Your task to perform on an android device: turn on showing notifications on the lock screen Image 0: 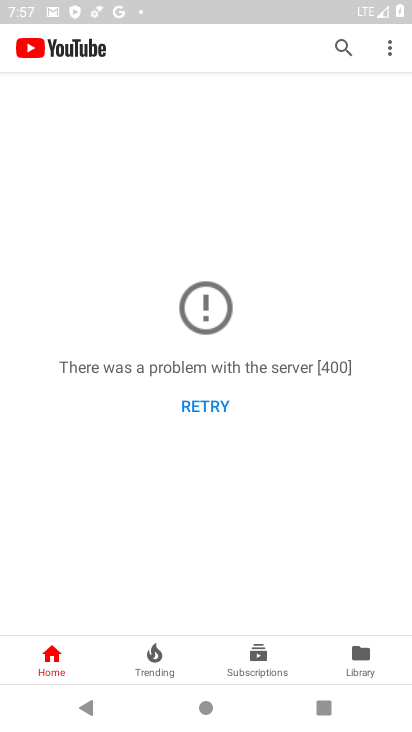
Step 0: press home button
Your task to perform on an android device: turn on showing notifications on the lock screen Image 1: 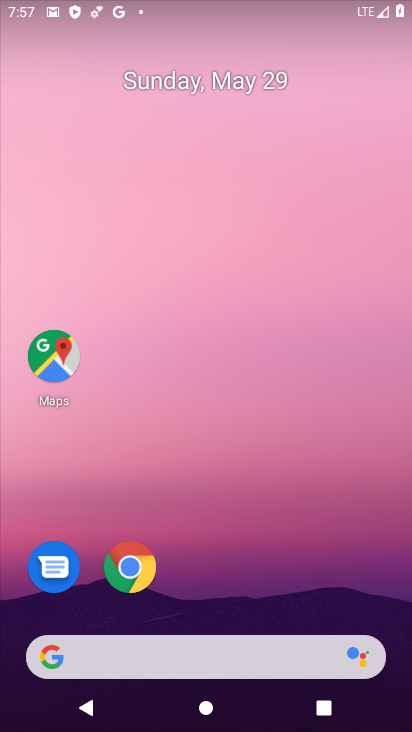
Step 1: drag from (238, 581) to (236, 258)
Your task to perform on an android device: turn on showing notifications on the lock screen Image 2: 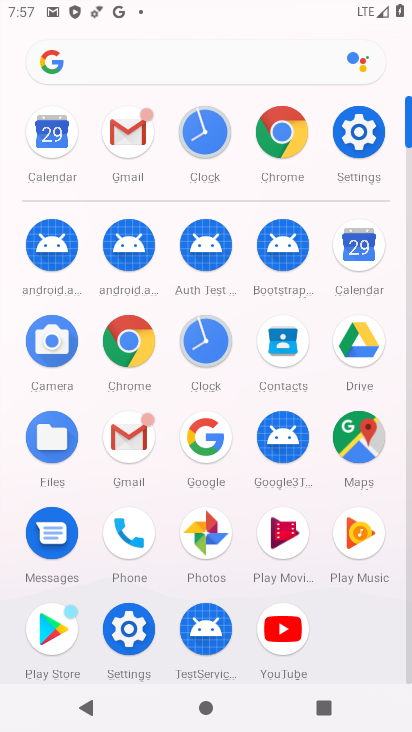
Step 2: click (350, 120)
Your task to perform on an android device: turn on showing notifications on the lock screen Image 3: 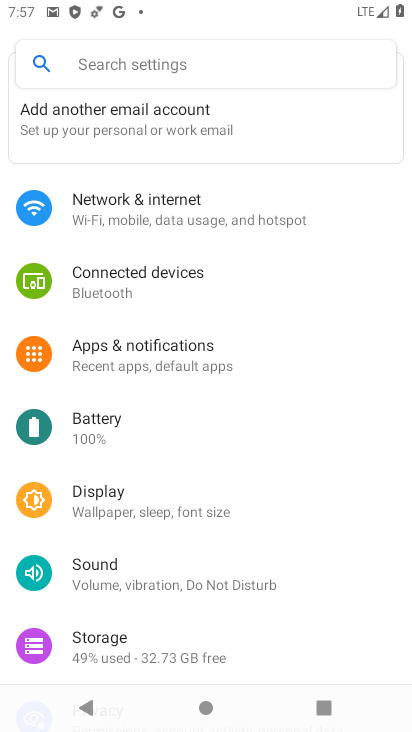
Step 3: click (181, 350)
Your task to perform on an android device: turn on showing notifications on the lock screen Image 4: 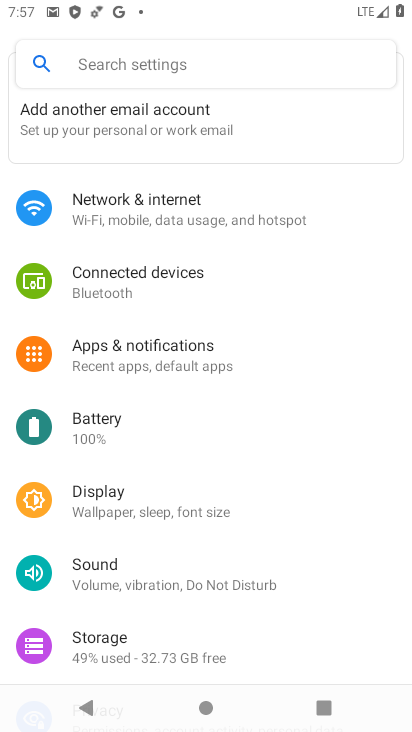
Step 4: click (182, 359)
Your task to perform on an android device: turn on showing notifications on the lock screen Image 5: 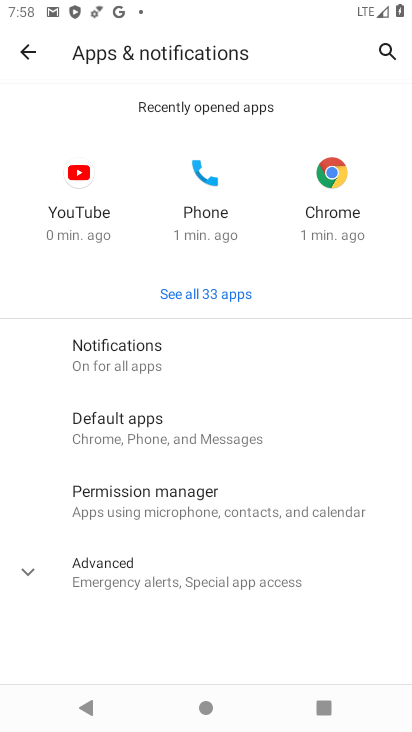
Step 5: click (81, 360)
Your task to perform on an android device: turn on showing notifications on the lock screen Image 6: 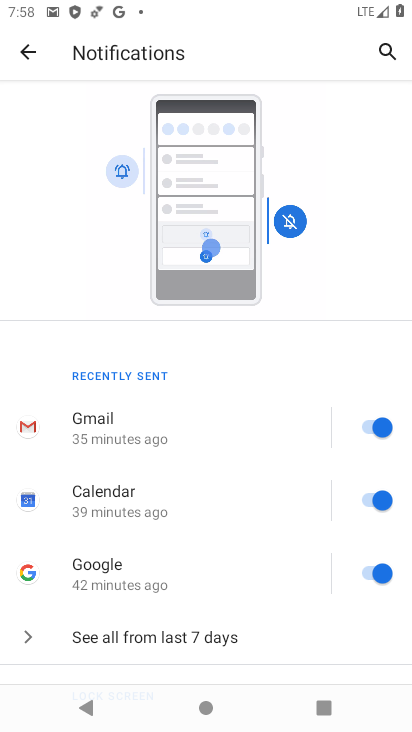
Step 6: drag from (230, 542) to (284, 163)
Your task to perform on an android device: turn on showing notifications on the lock screen Image 7: 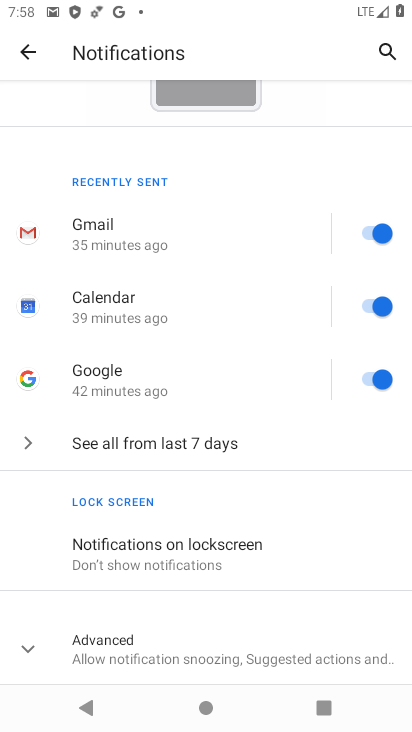
Step 7: click (119, 554)
Your task to perform on an android device: turn on showing notifications on the lock screen Image 8: 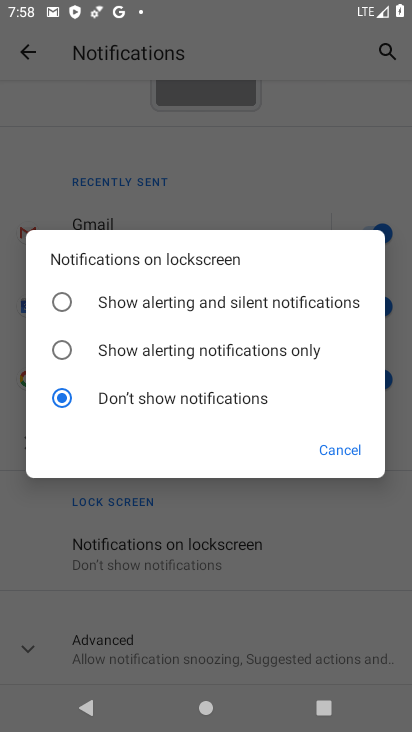
Step 8: click (124, 305)
Your task to perform on an android device: turn on showing notifications on the lock screen Image 9: 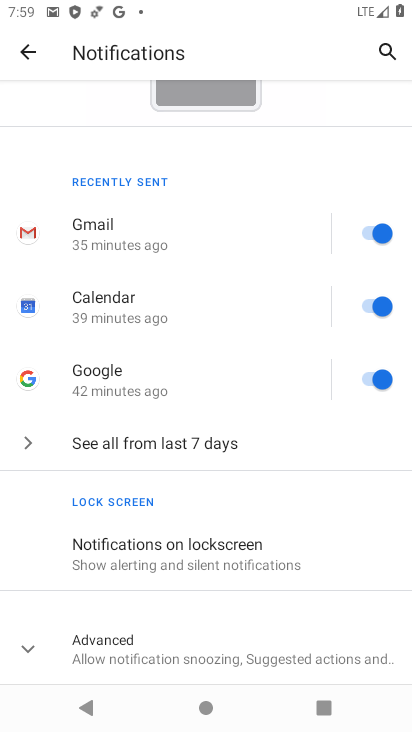
Step 9: task complete